Your task to perform on an android device: turn on airplane mode Image 0: 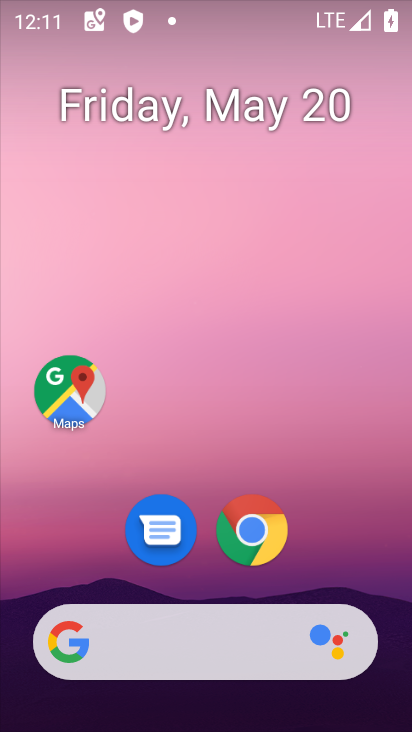
Step 0: drag from (183, 570) to (251, 32)
Your task to perform on an android device: turn on airplane mode Image 1: 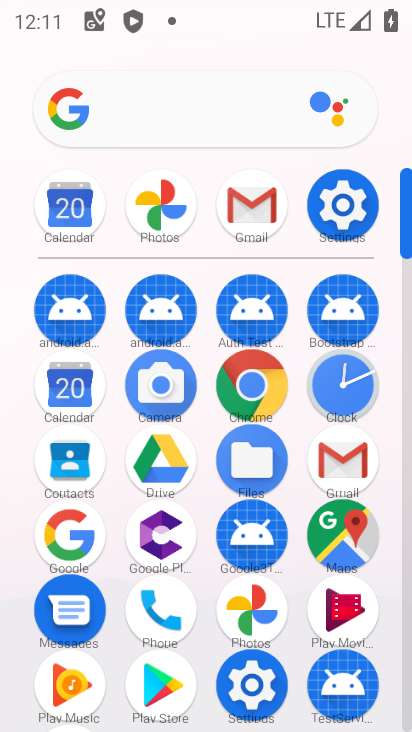
Step 1: click (348, 220)
Your task to perform on an android device: turn on airplane mode Image 2: 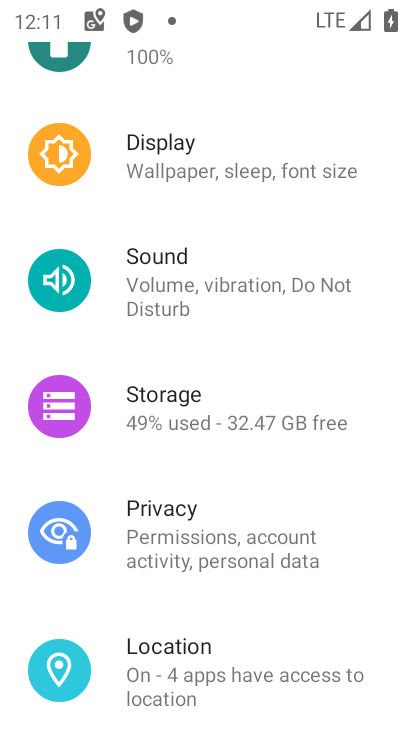
Step 2: drag from (327, 221) to (261, 547)
Your task to perform on an android device: turn on airplane mode Image 3: 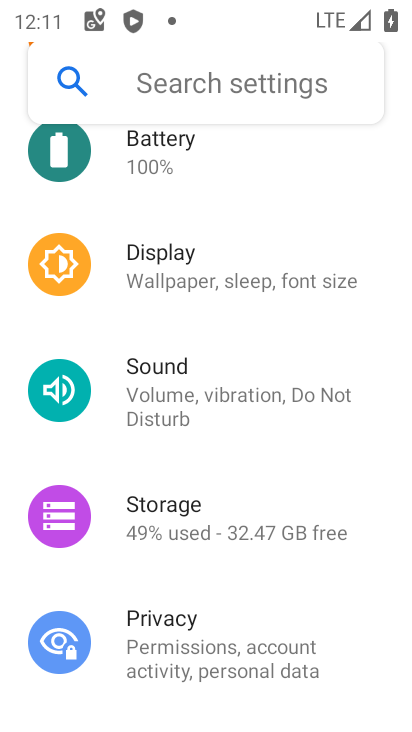
Step 3: drag from (260, 204) to (216, 714)
Your task to perform on an android device: turn on airplane mode Image 4: 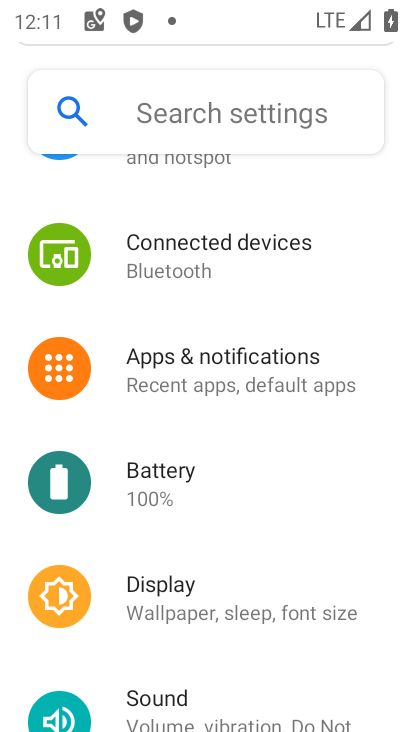
Step 4: drag from (278, 247) to (242, 603)
Your task to perform on an android device: turn on airplane mode Image 5: 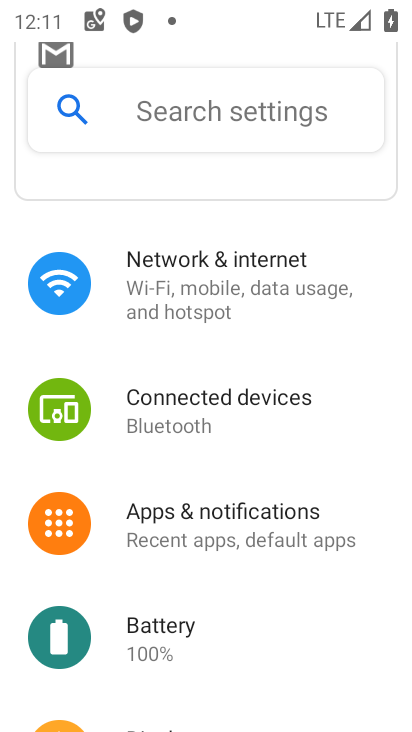
Step 5: click (268, 303)
Your task to perform on an android device: turn on airplane mode Image 6: 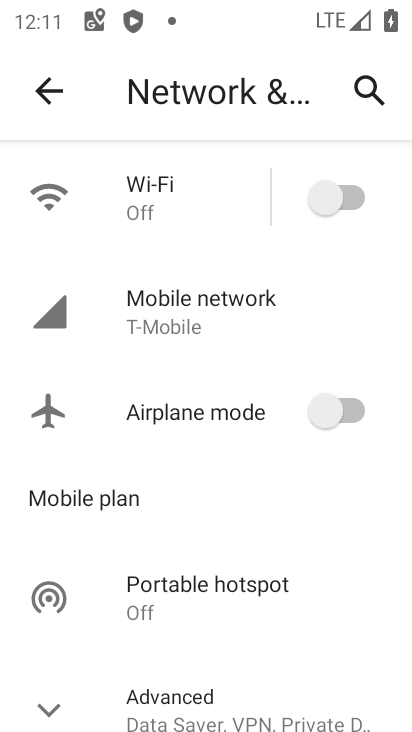
Step 6: click (341, 412)
Your task to perform on an android device: turn on airplane mode Image 7: 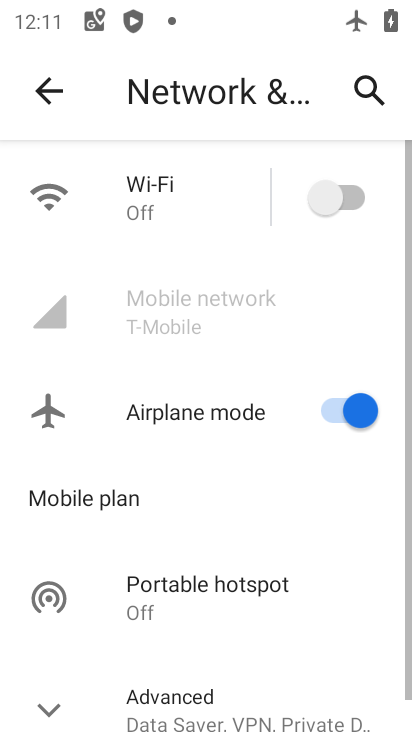
Step 7: task complete